Your task to perform on an android device: install app "Microsoft Authenticator" Image 0: 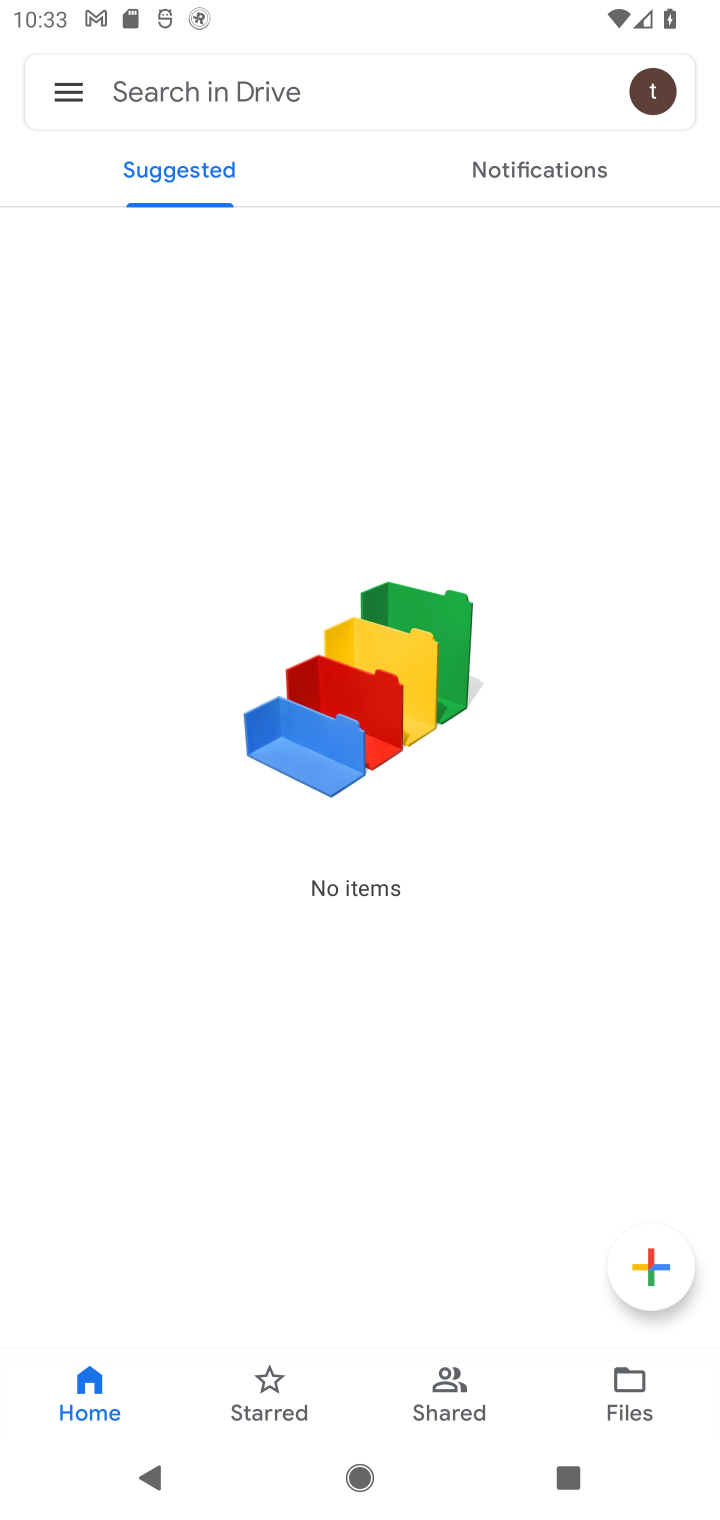
Step 0: press home button
Your task to perform on an android device: install app "Microsoft Authenticator" Image 1: 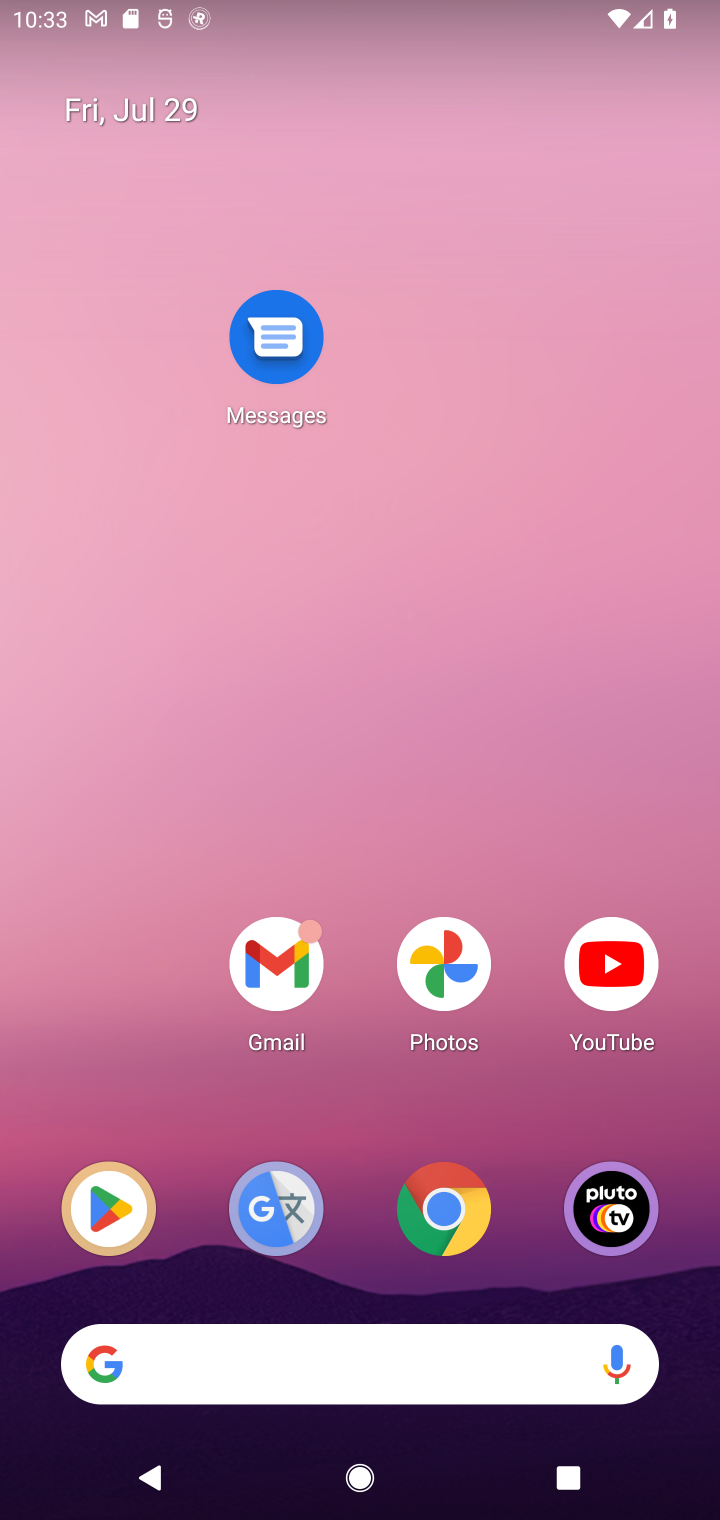
Step 1: drag from (299, 1354) to (287, 146)
Your task to perform on an android device: install app "Microsoft Authenticator" Image 2: 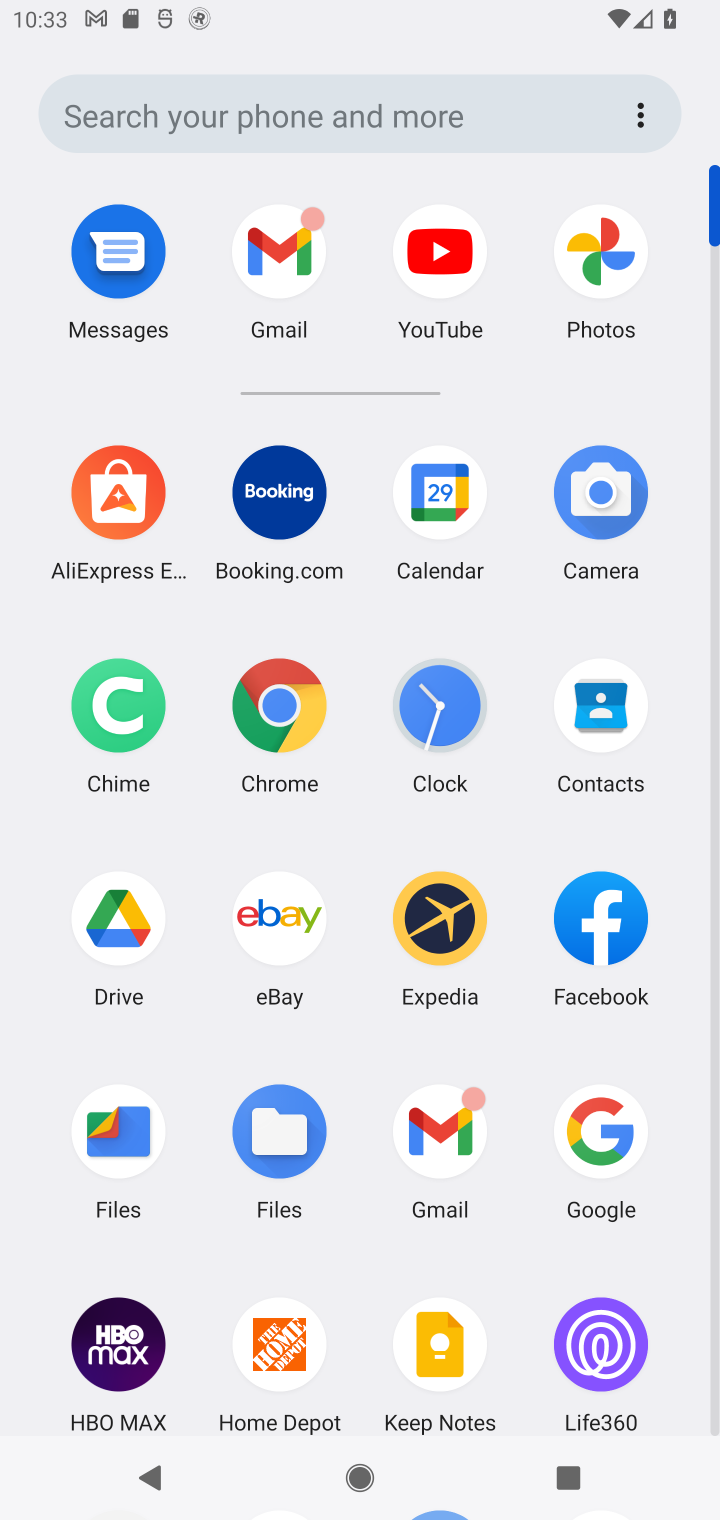
Step 2: drag from (359, 1186) to (387, 551)
Your task to perform on an android device: install app "Microsoft Authenticator" Image 3: 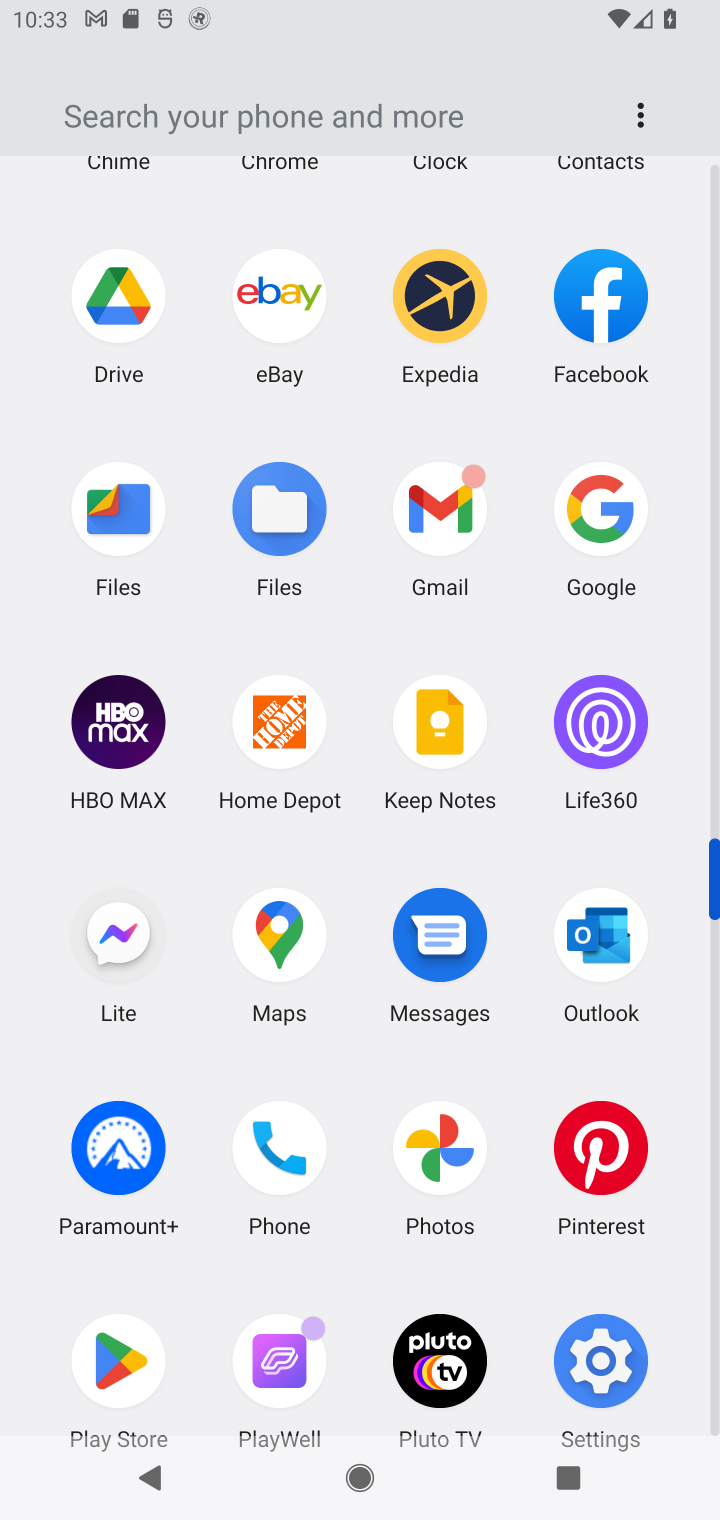
Step 3: click (124, 1360)
Your task to perform on an android device: install app "Microsoft Authenticator" Image 4: 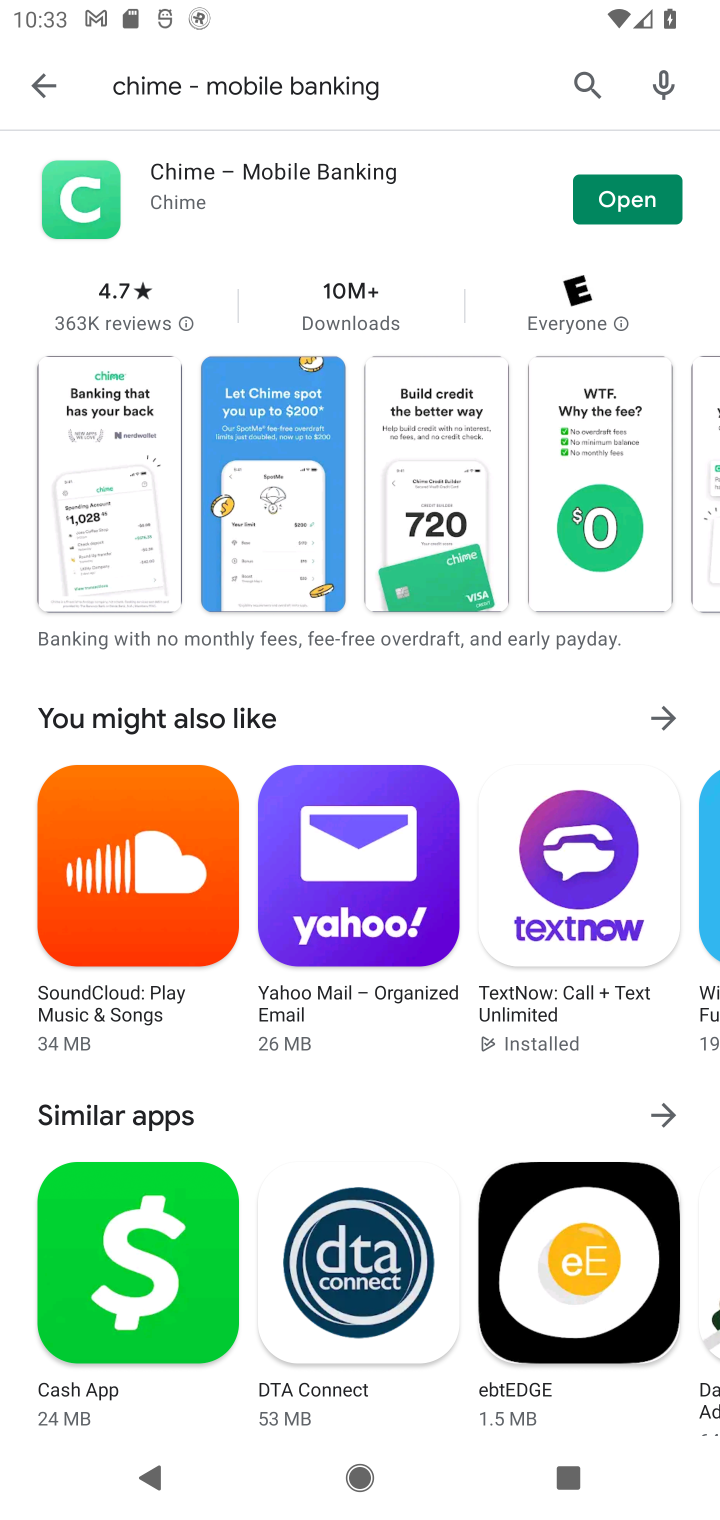
Step 4: click (584, 85)
Your task to perform on an android device: install app "Microsoft Authenticator" Image 5: 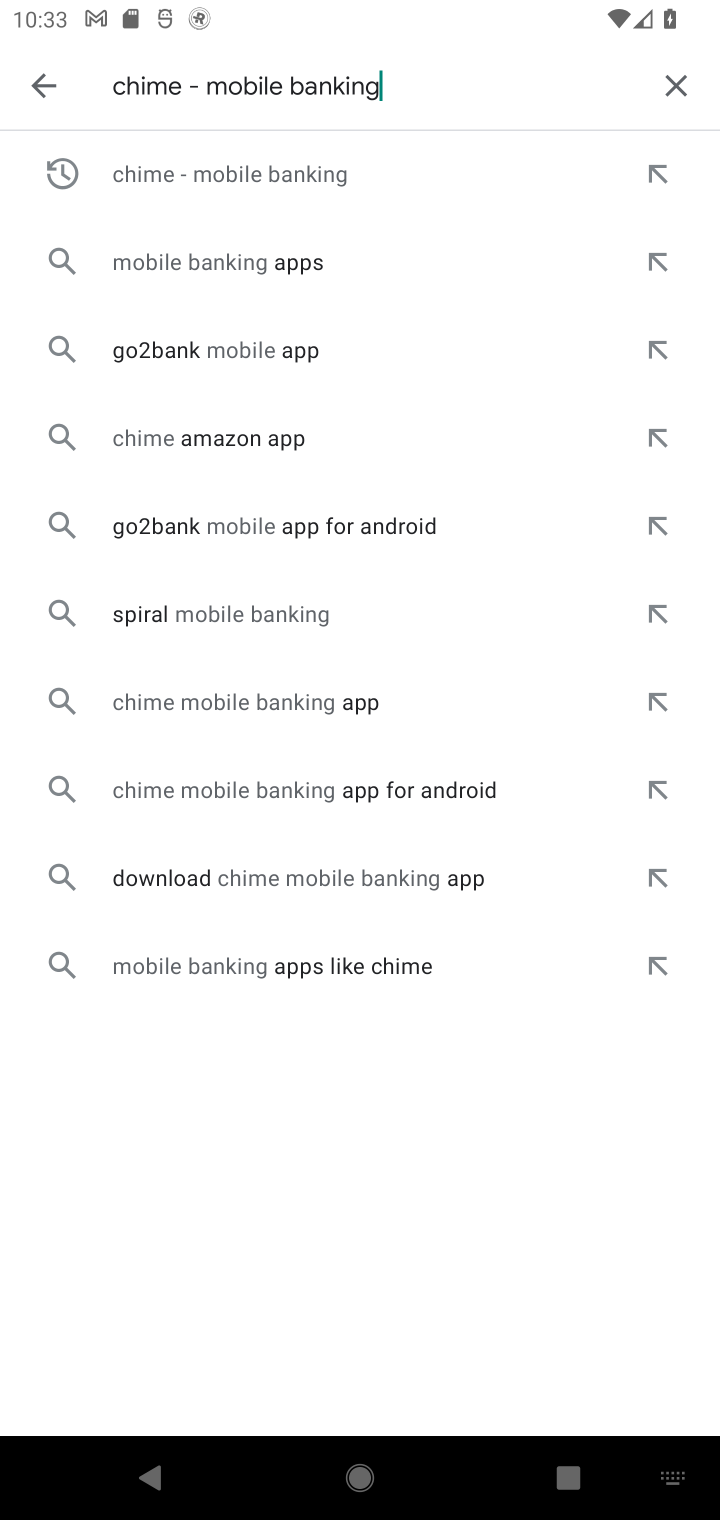
Step 5: click (684, 84)
Your task to perform on an android device: install app "Microsoft Authenticator" Image 6: 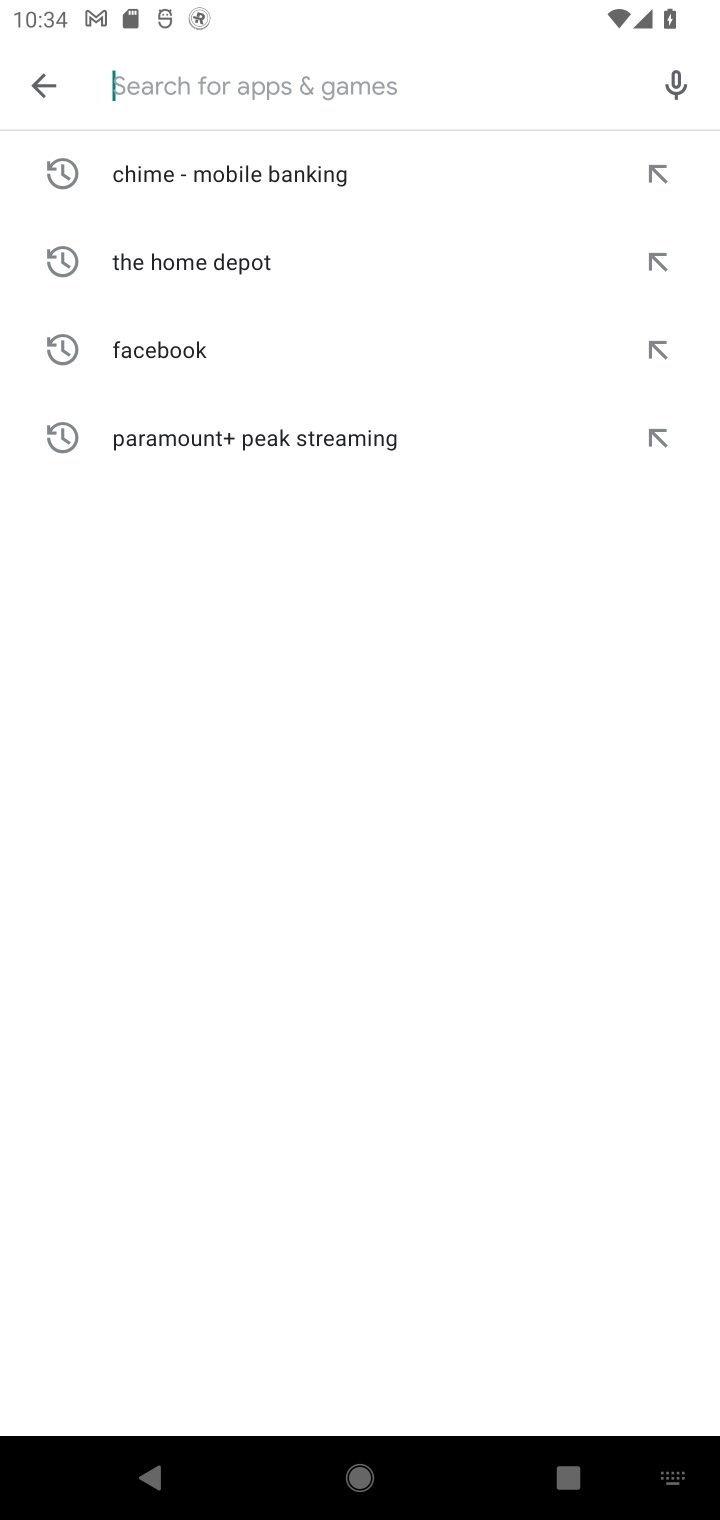
Step 6: type "Microsoft Authenticator"
Your task to perform on an android device: install app "Microsoft Authenticator" Image 7: 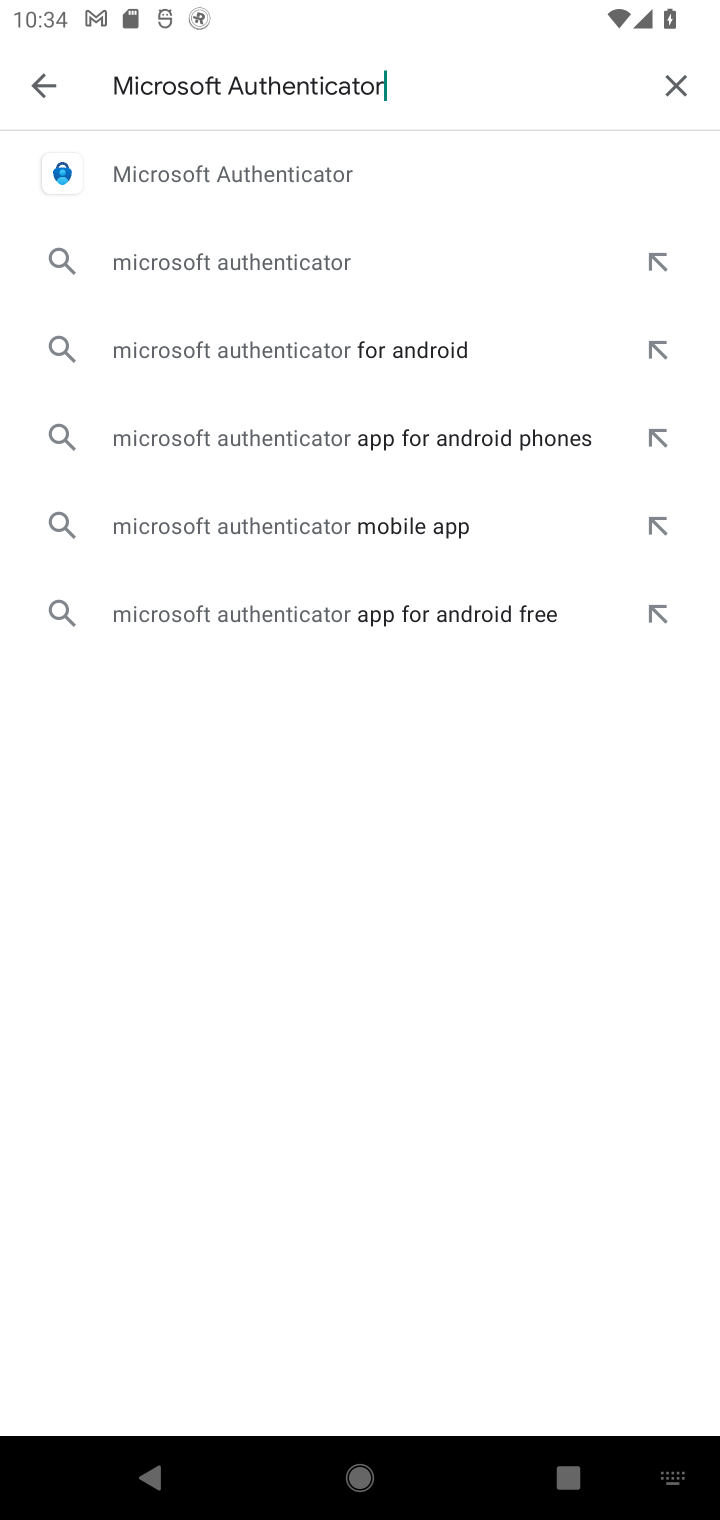
Step 7: click (213, 186)
Your task to perform on an android device: install app "Microsoft Authenticator" Image 8: 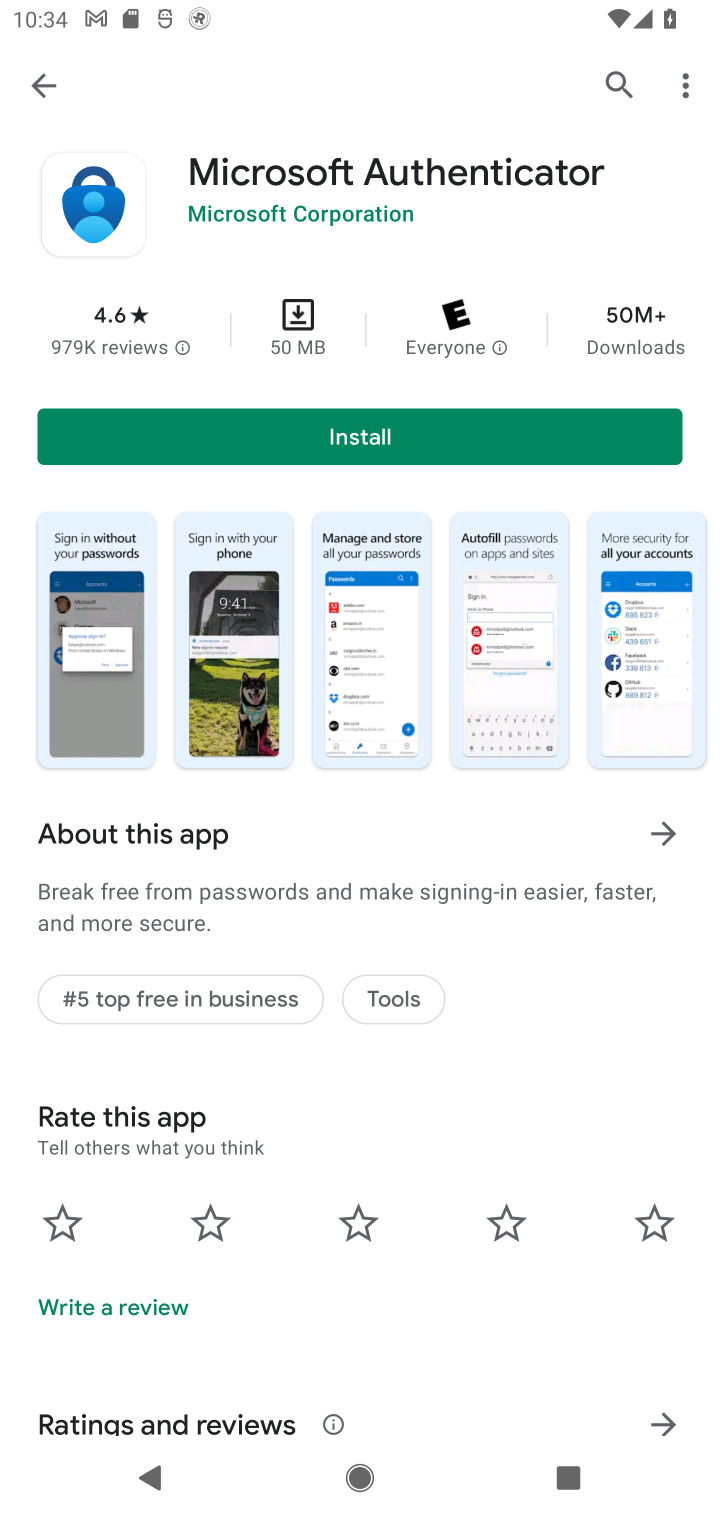
Step 8: click (326, 439)
Your task to perform on an android device: install app "Microsoft Authenticator" Image 9: 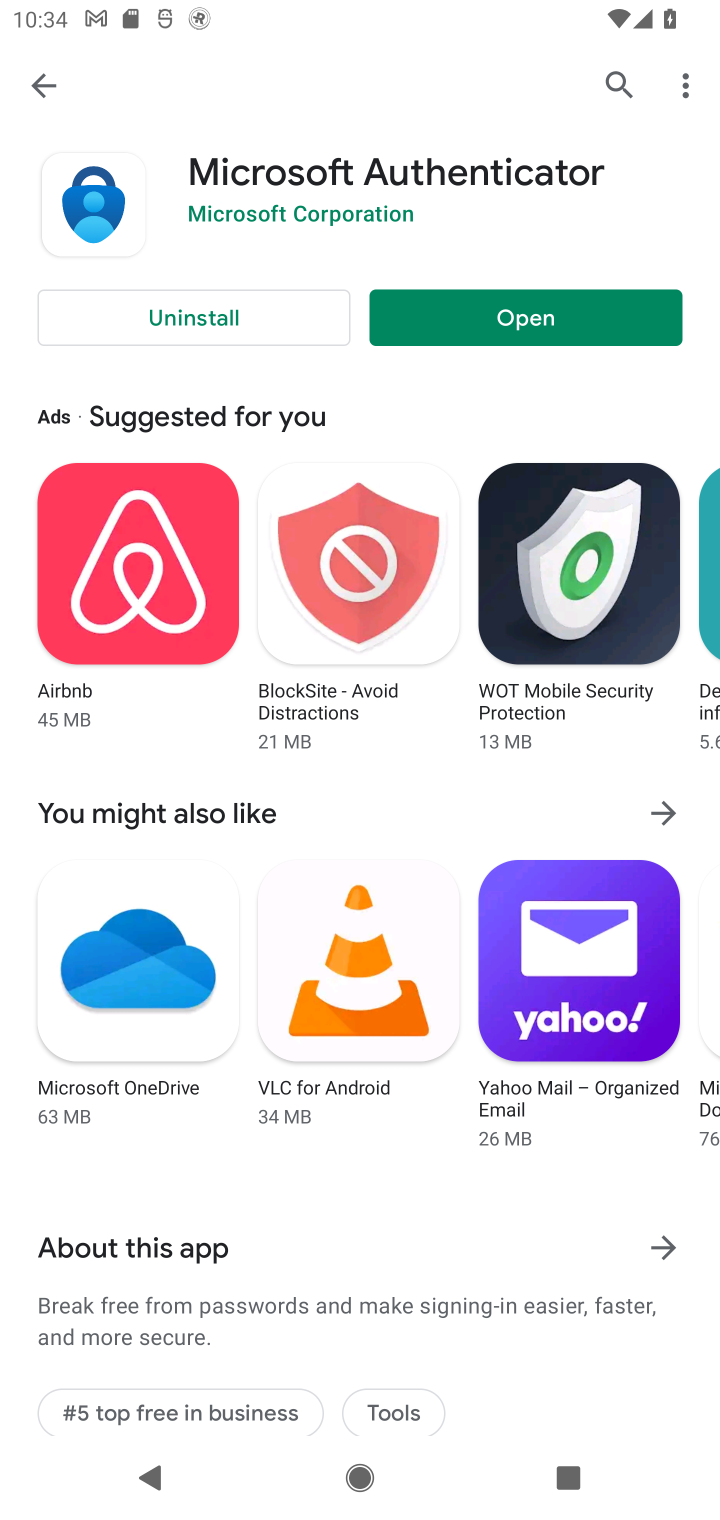
Step 9: task complete